Your task to perform on an android device: Open Google Maps Image 0: 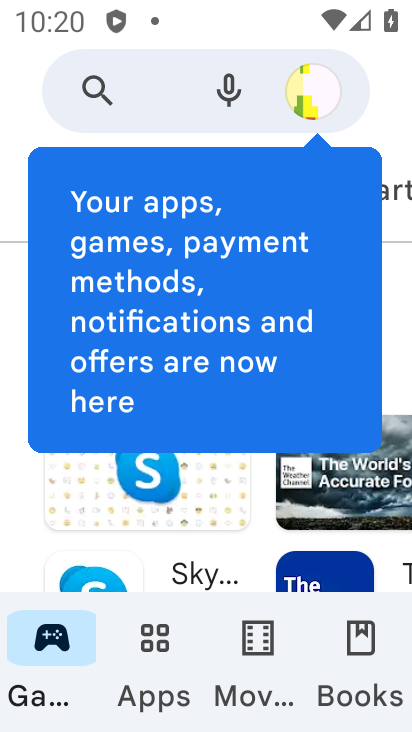
Step 0: press home button
Your task to perform on an android device: Open Google Maps Image 1: 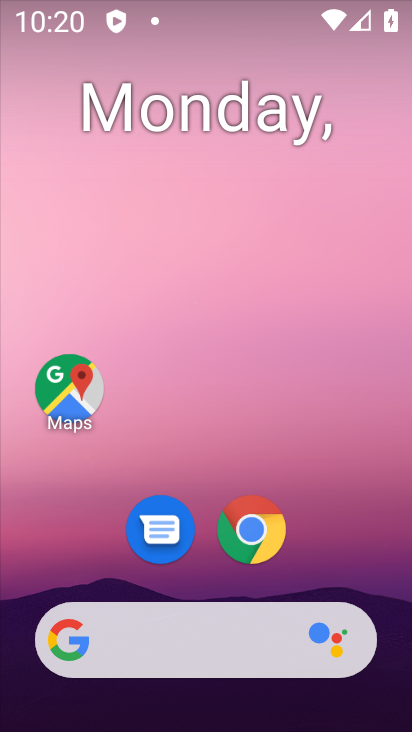
Step 1: click (57, 399)
Your task to perform on an android device: Open Google Maps Image 2: 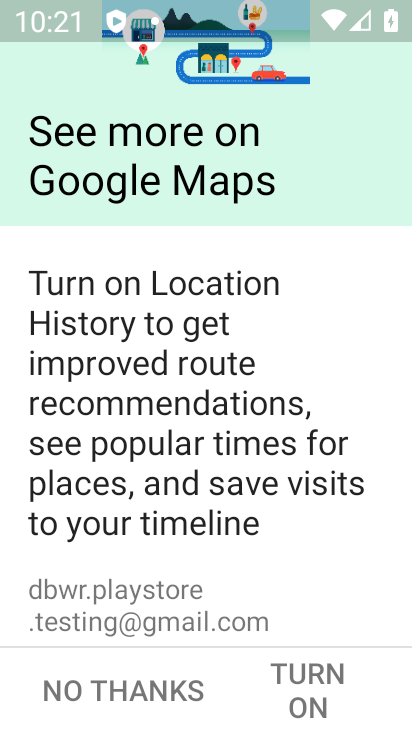
Step 2: task complete